Your task to perform on an android device: Check the weather Image 0: 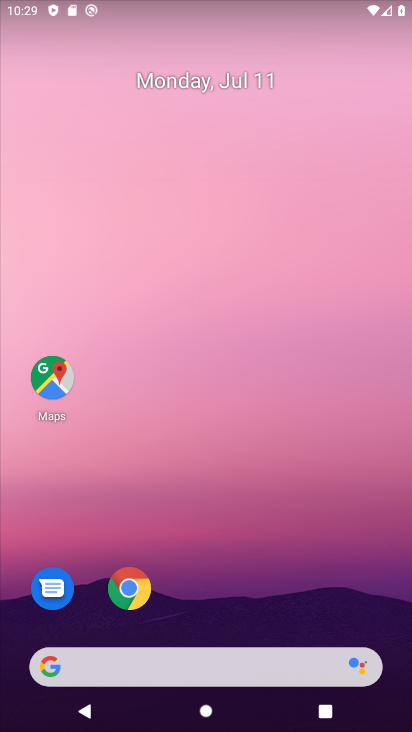
Step 0: click (166, 670)
Your task to perform on an android device: Check the weather Image 1: 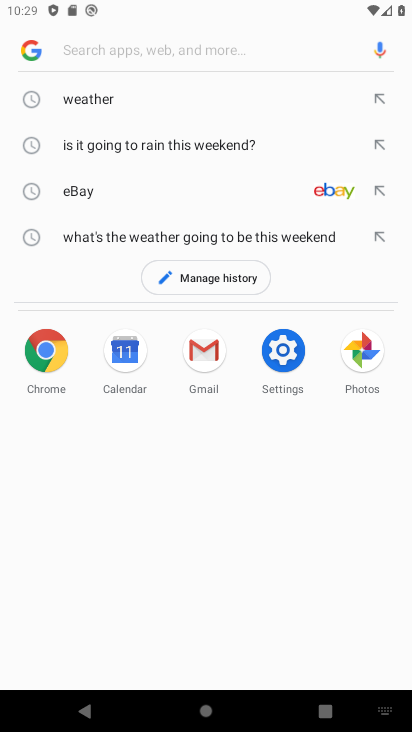
Step 1: click (103, 95)
Your task to perform on an android device: Check the weather Image 2: 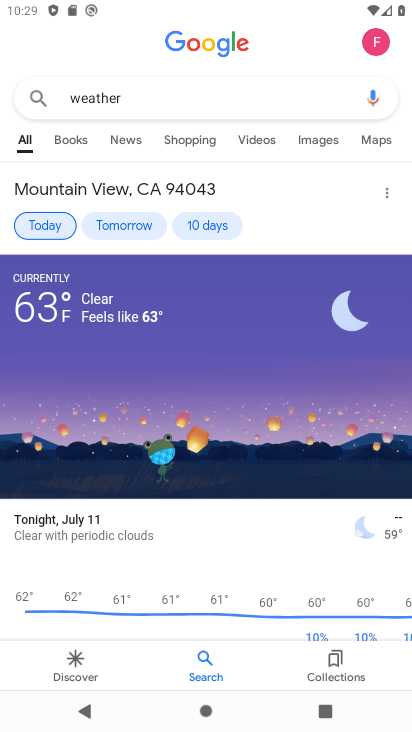
Step 2: task complete